Your task to perform on an android device: open app "LinkedIn" (install if not already installed), go to login, and select forgot password Image 0: 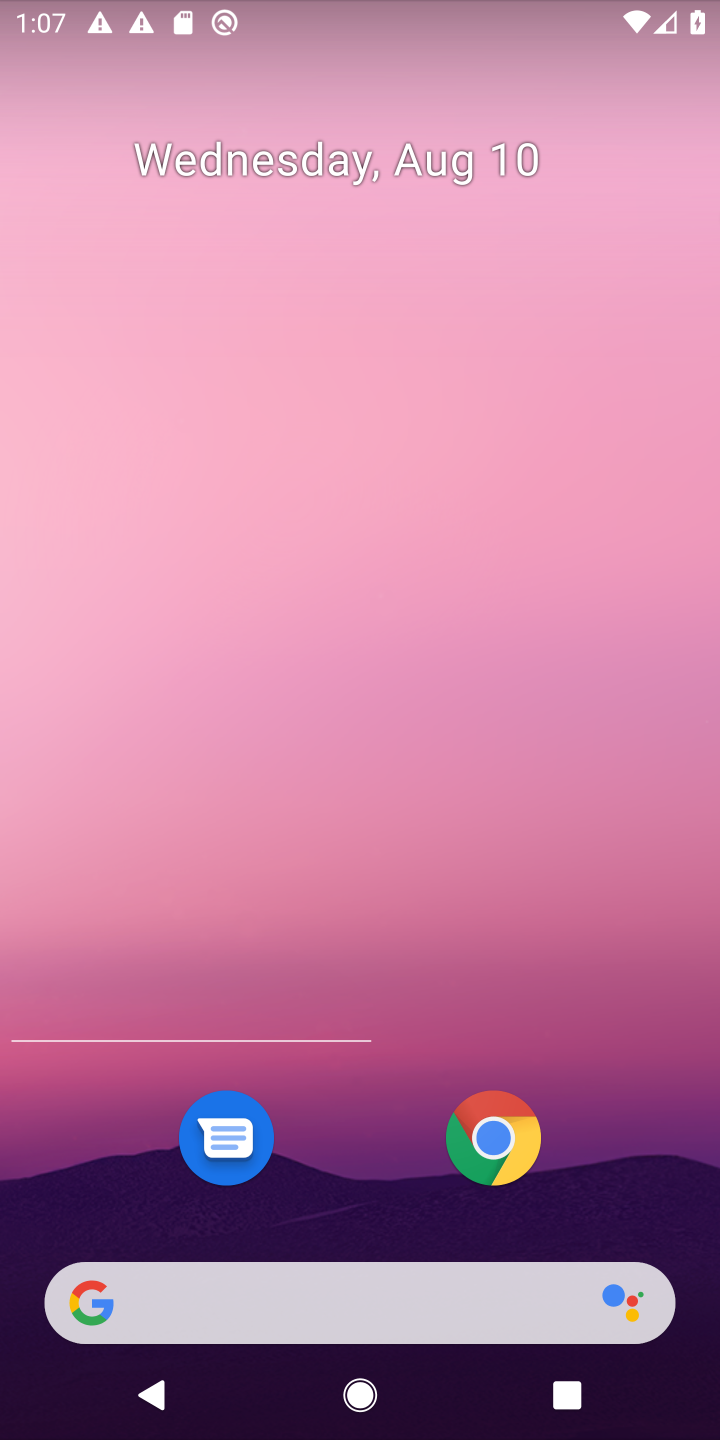
Step 0: press home button
Your task to perform on an android device: open app "LinkedIn" (install if not already installed), go to login, and select forgot password Image 1: 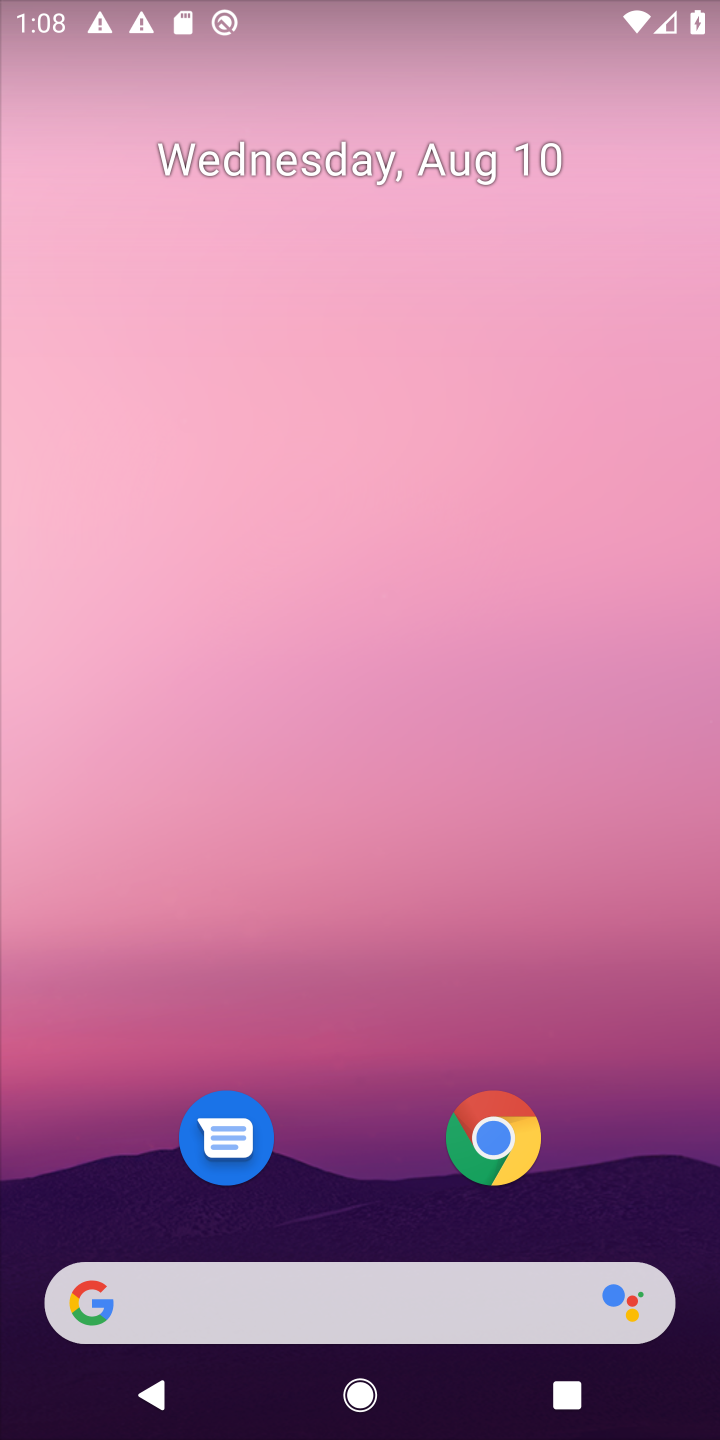
Step 1: drag from (613, 1001) to (632, 116)
Your task to perform on an android device: open app "LinkedIn" (install if not already installed), go to login, and select forgot password Image 2: 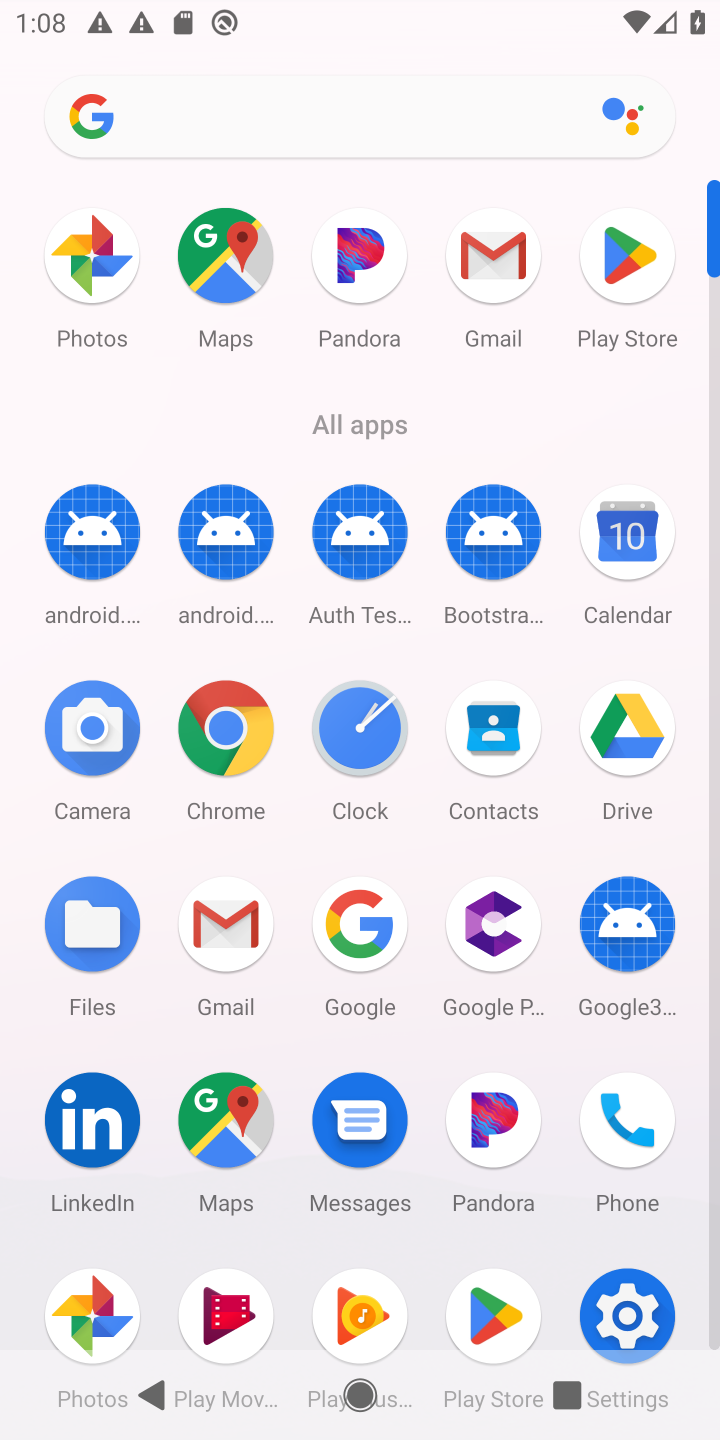
Step 2: click (626, 257)
Your task to perform on an android device: open app "LinkedIn" (install if not already installed), go to login, and select forgot password Image 3: 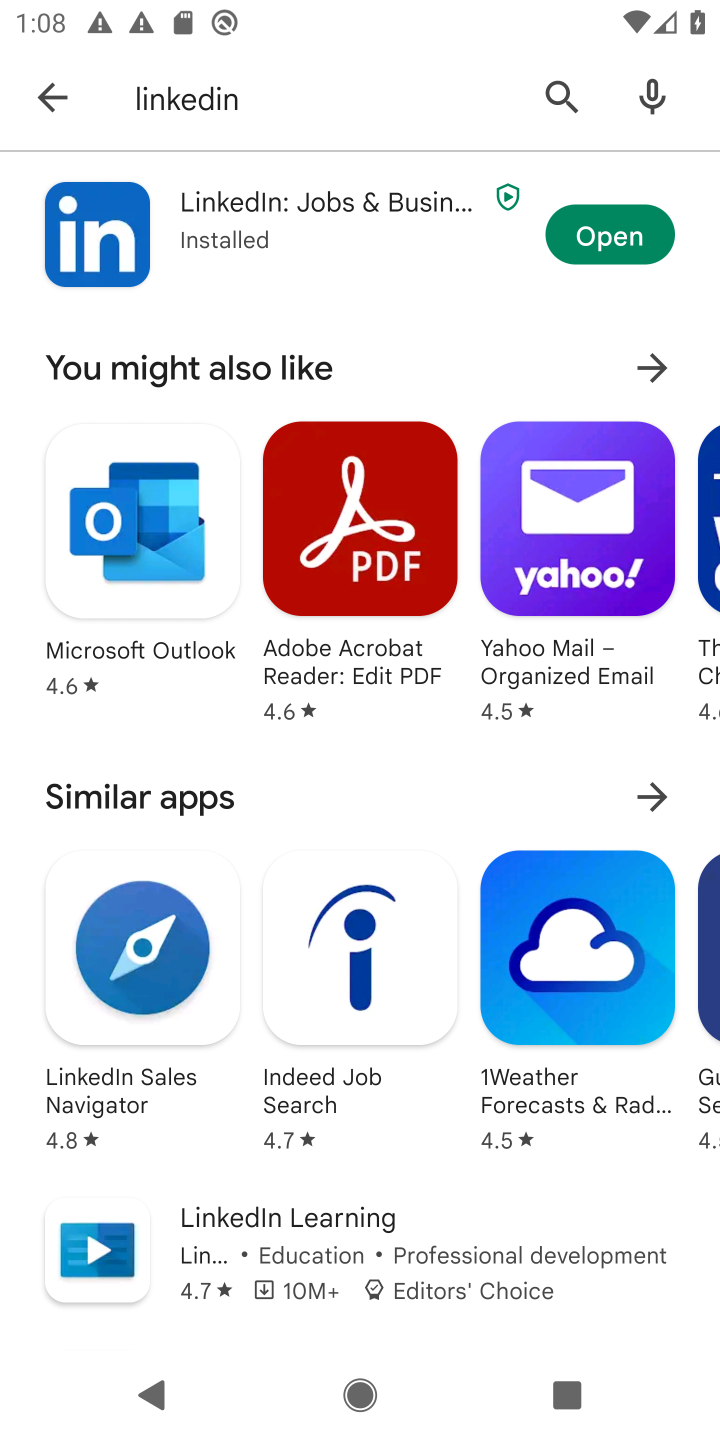
Step 3: click (556, 89)
Your task to perform on an android device: open app "LinkedIn" (install if not already installed), go to login, and select forgot password Image 4: 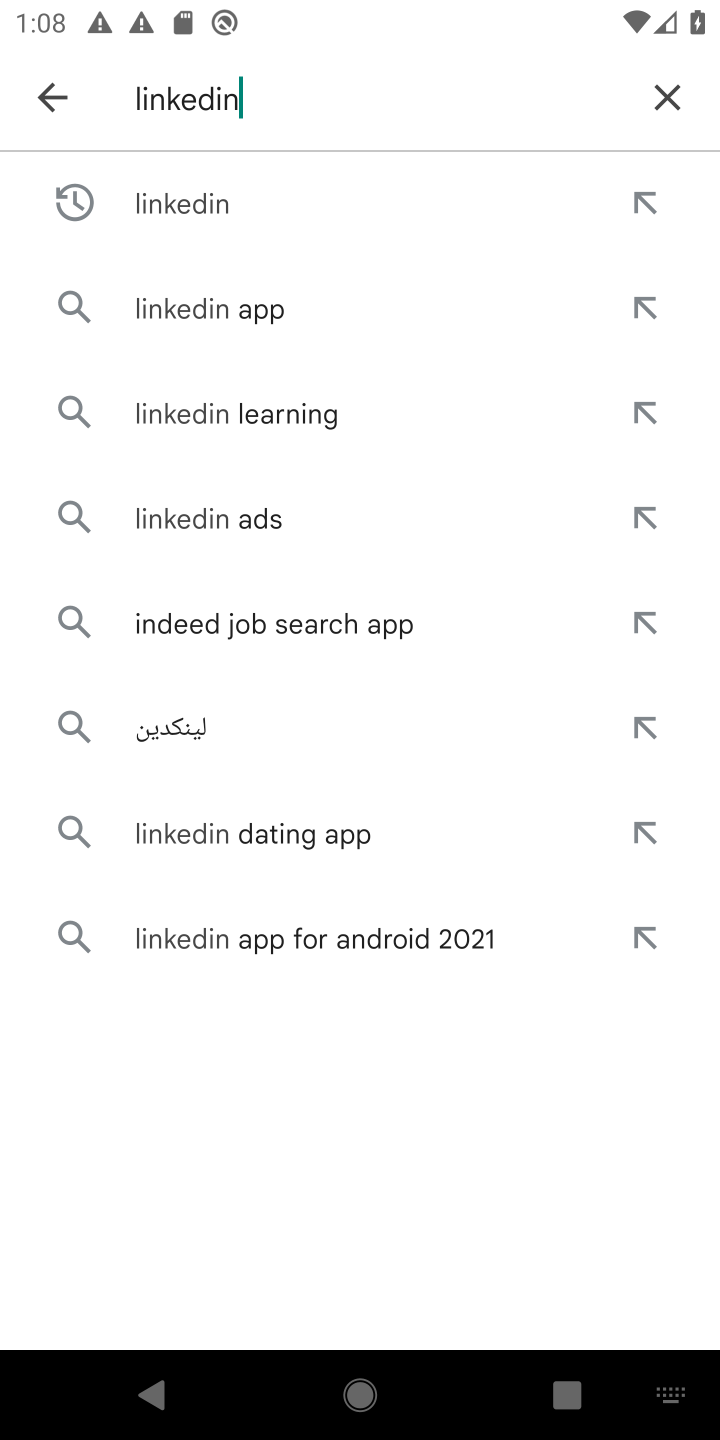
Step 4: click (658, 102)
Your task to perform on an android device: open app "LinkedIn" (install if not already installed), go to login, and select forgot password Image 5: 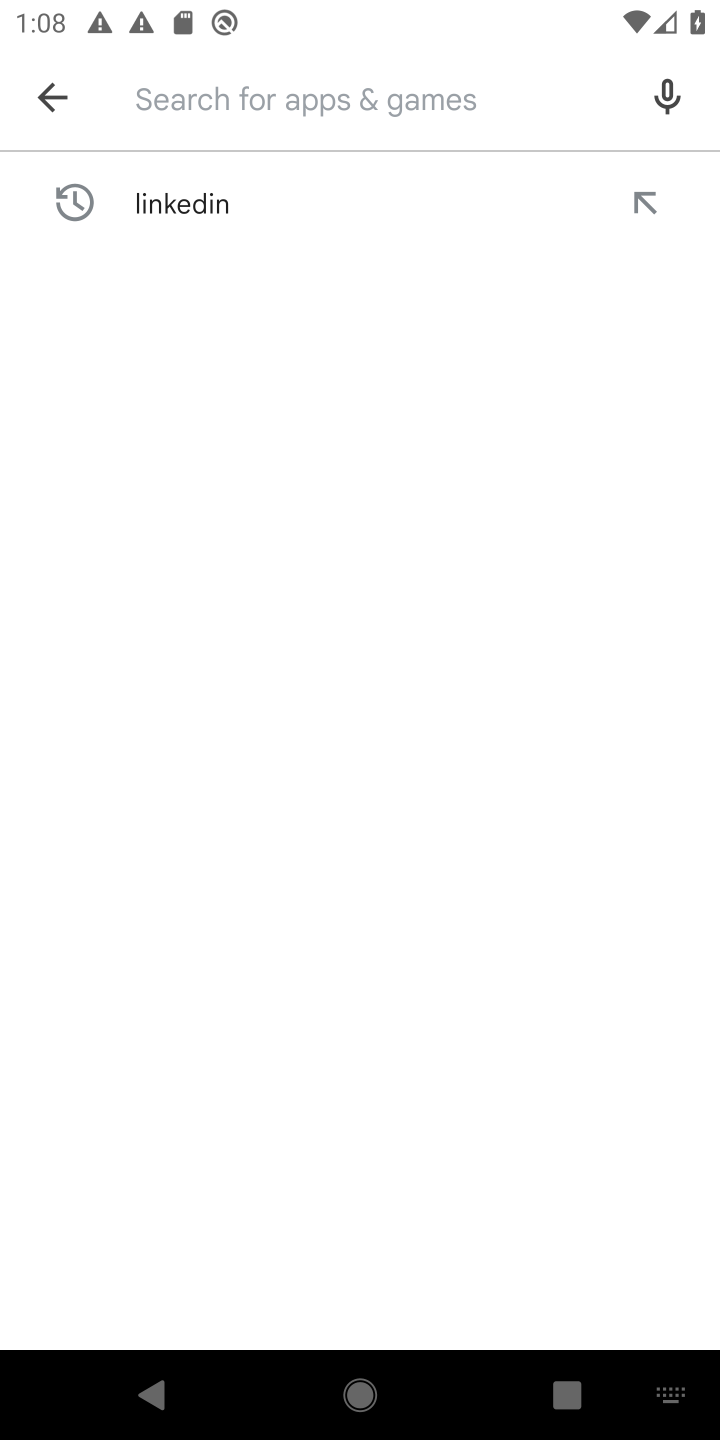
Step 5: click (228, 197)
Your task to perform on an android device: open app "LinkedIn" (install if not already installed), go to login, and select forgot password Image 6: 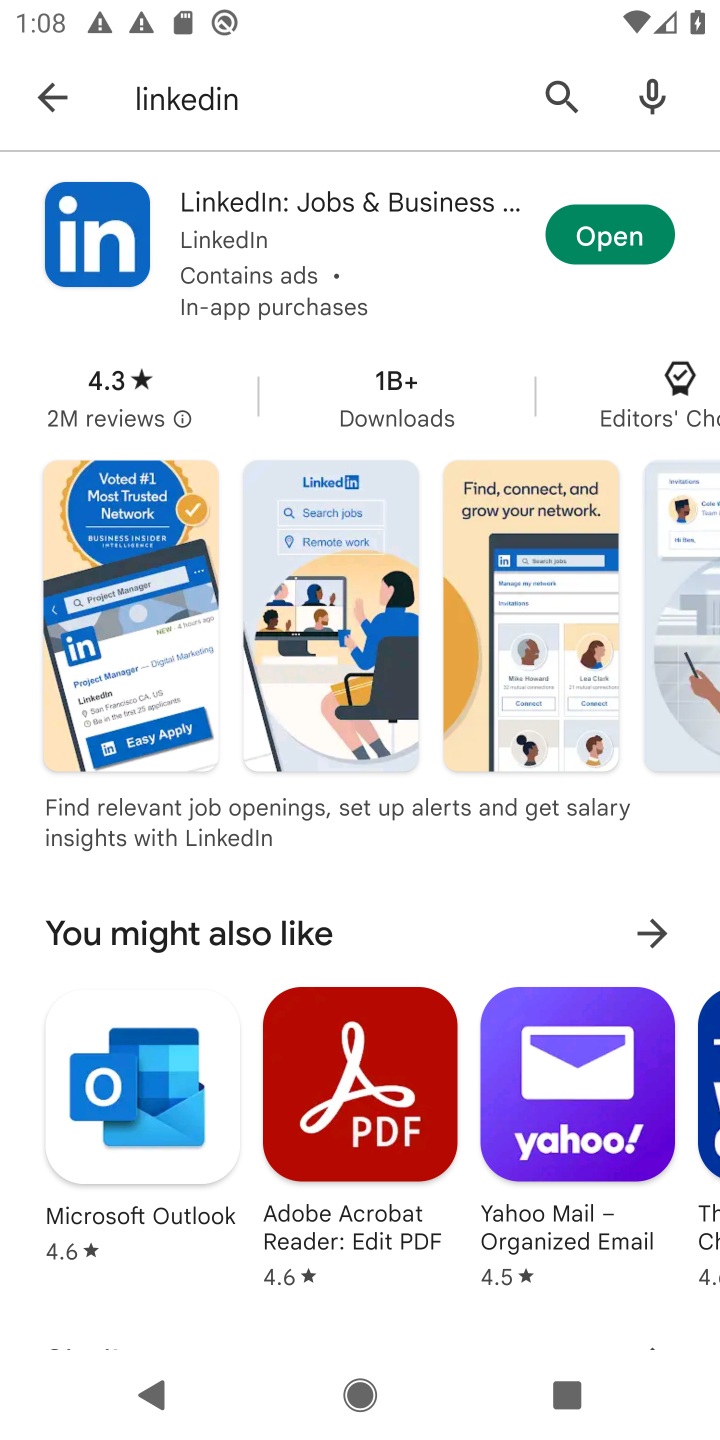
Step 6: click (621, 236)
Your task to perform on an android device: open app "LinkedIn" (install if not already installed), go to login, and select forgot password Image 7: 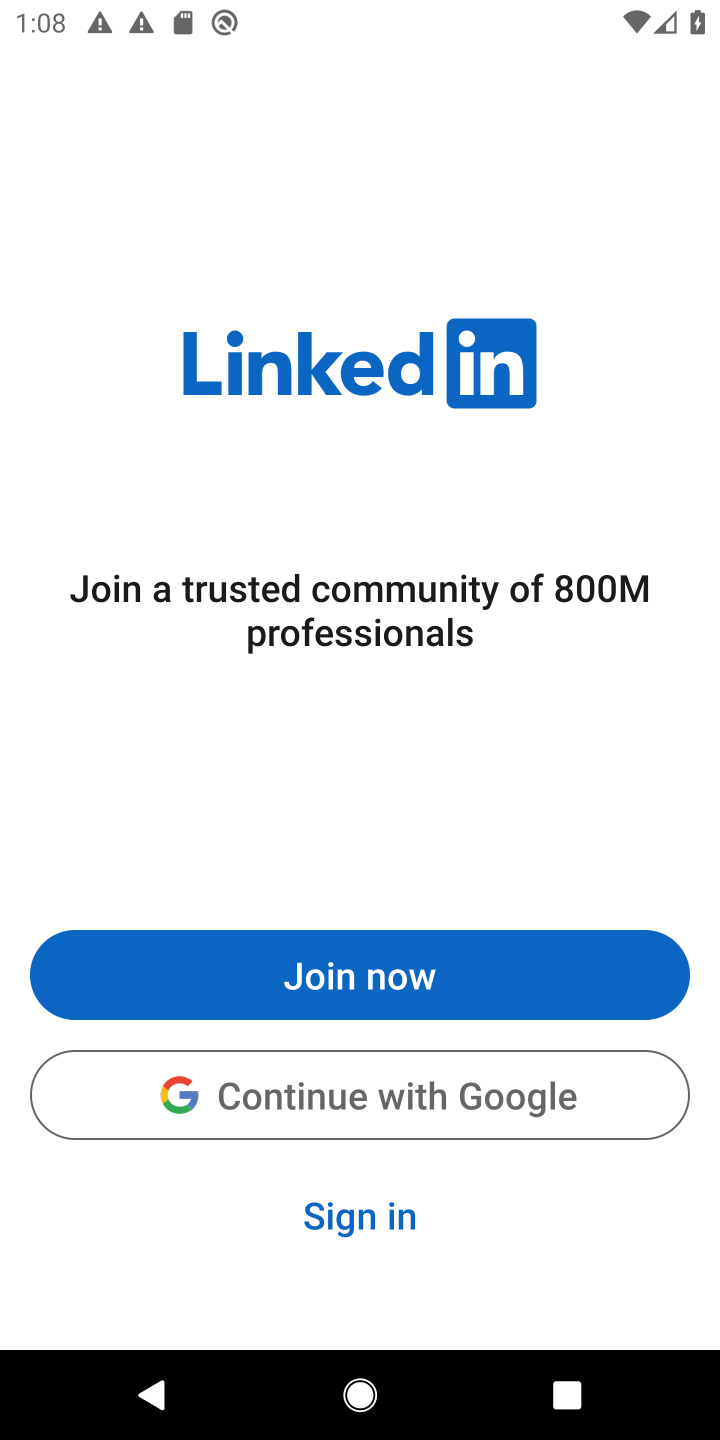
Step 7: click (354, 1224)
Your task to perform on an android device: open app "LinkedIn" (install if not already installed), go to login, and select forgot password Image 8: 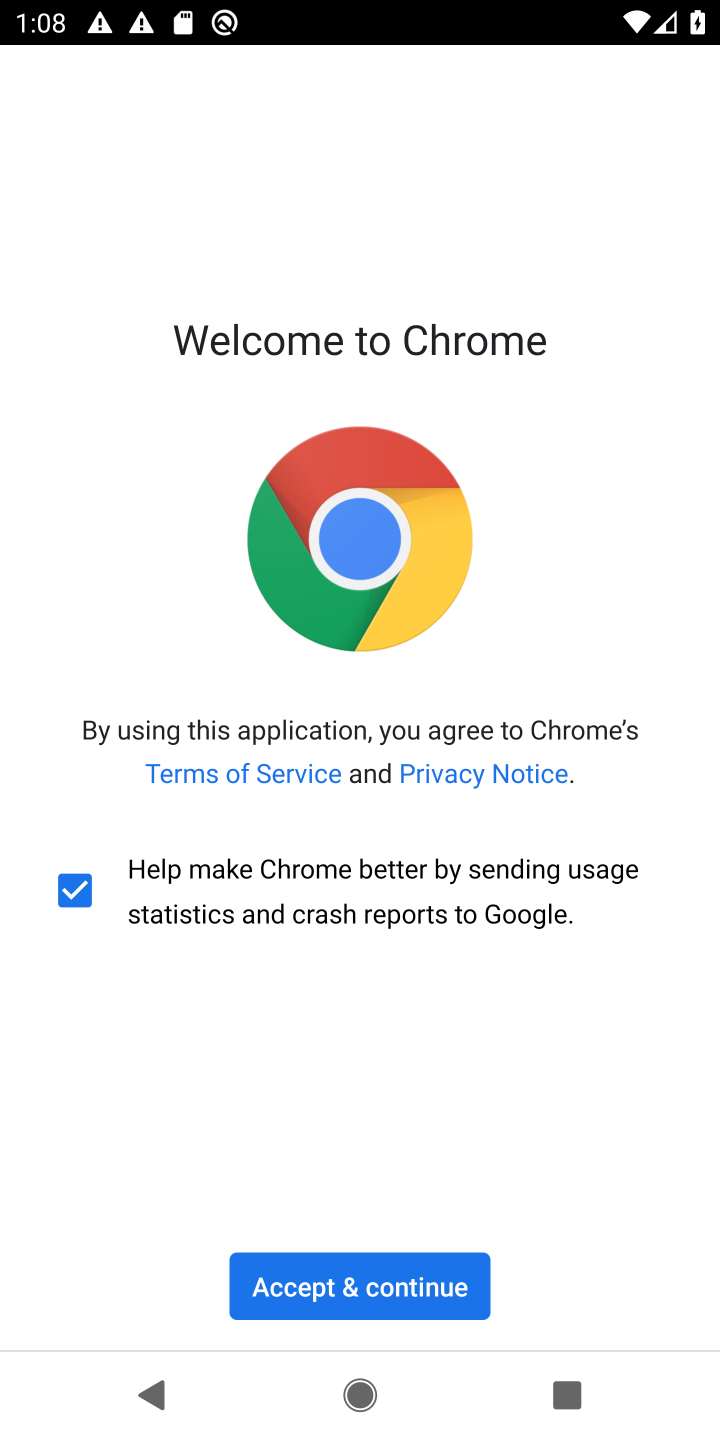
Step 8: press back button
Your task to perform on an android device: open app "LinkedIn" (install if not already installed), go to login, and select forgot password Image 9: 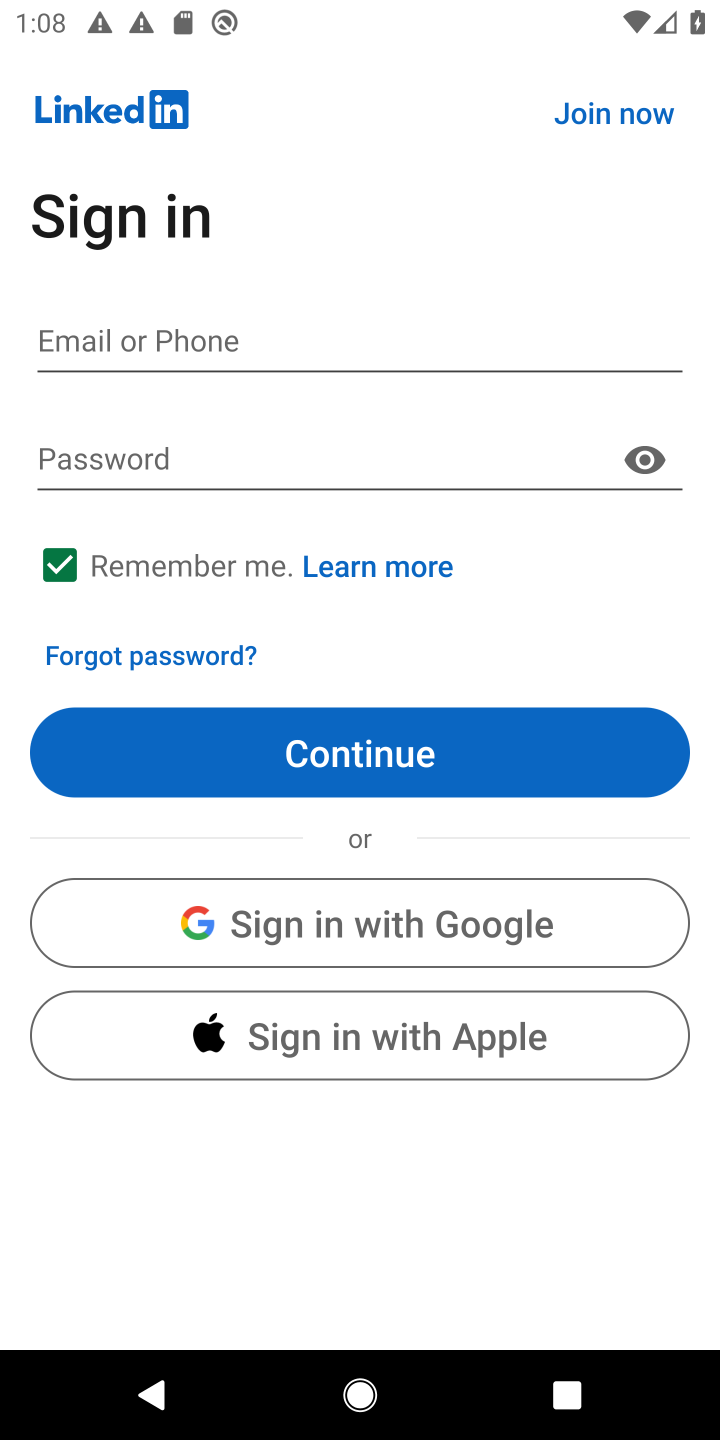
Step 9: click (148, 651)
Your task to perform on an android device: open app "LinkedIn" (install if not already installed), go to login, and select forgot password Image 10: 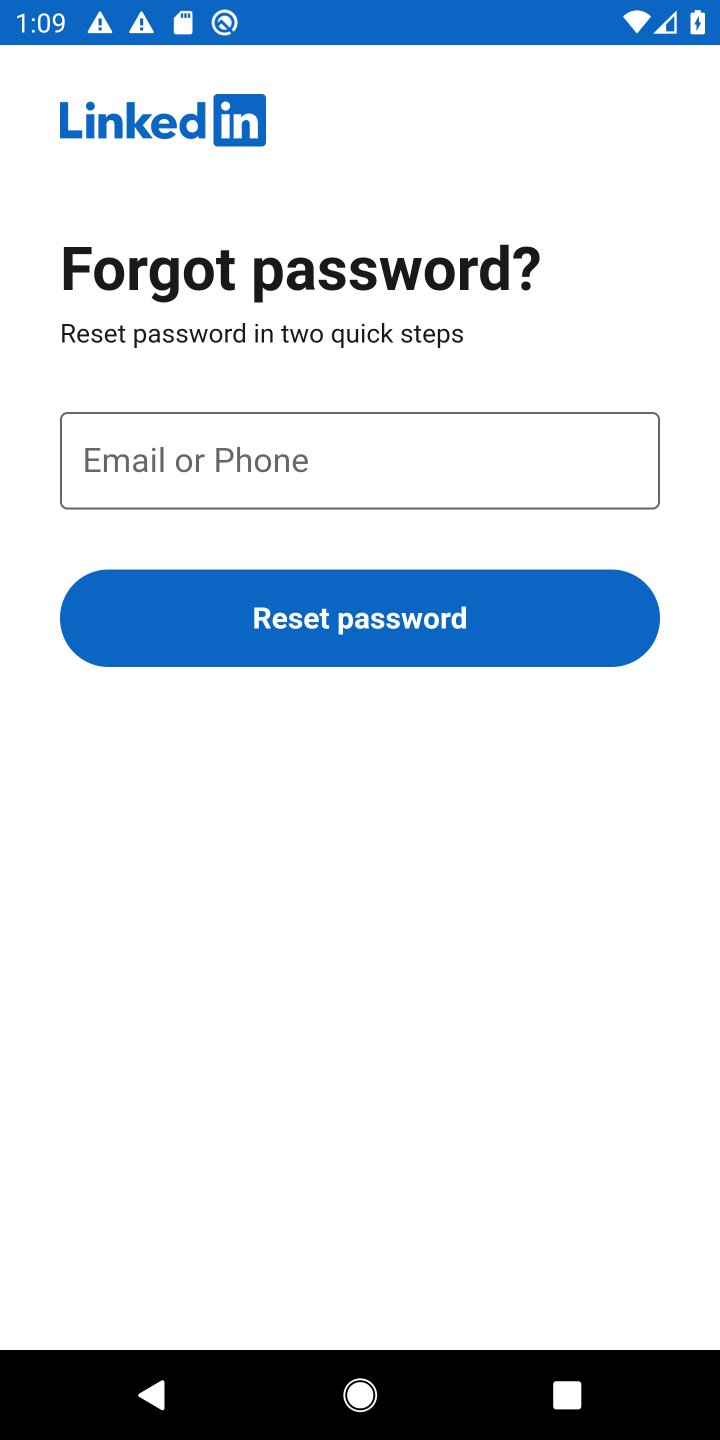
Step 10: task complete